Your task to perform on an android device: Open internet settings Image 0: 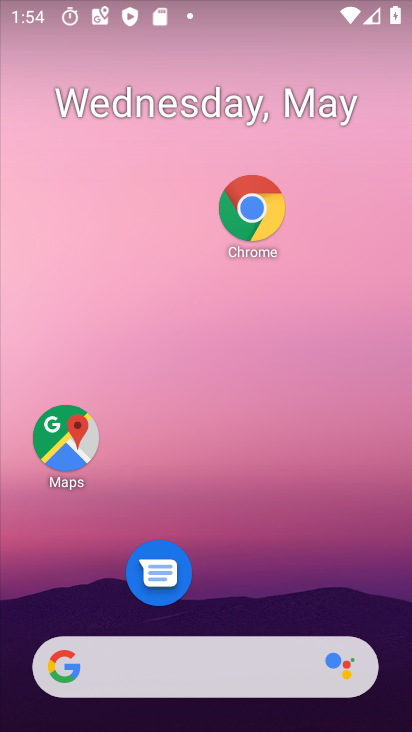
Step 0: drag from (213, 597) to (149, 15)
Your task to perform on an android device: Open internet settings Image 1: 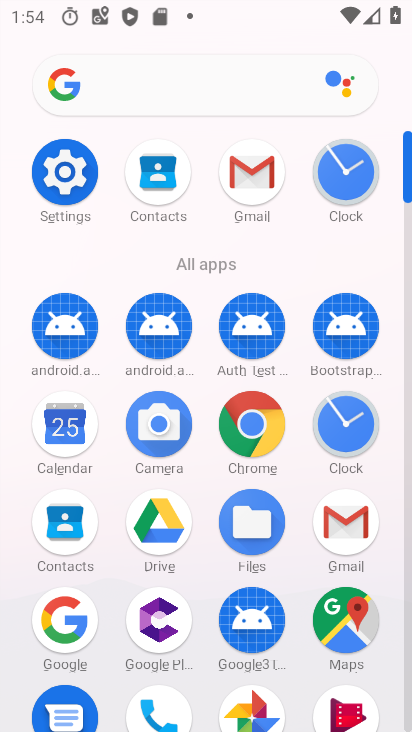
Step 1: click (57, 163)
Your task to perform on an android device: Open internet settings Image 2: 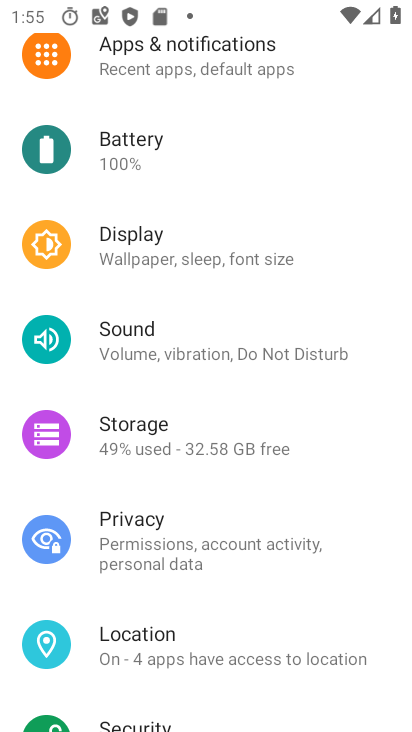
Step 2: drag from (241, 30) to (146, 502)
Your task to perform on an android device: Open internet settings Image 3: 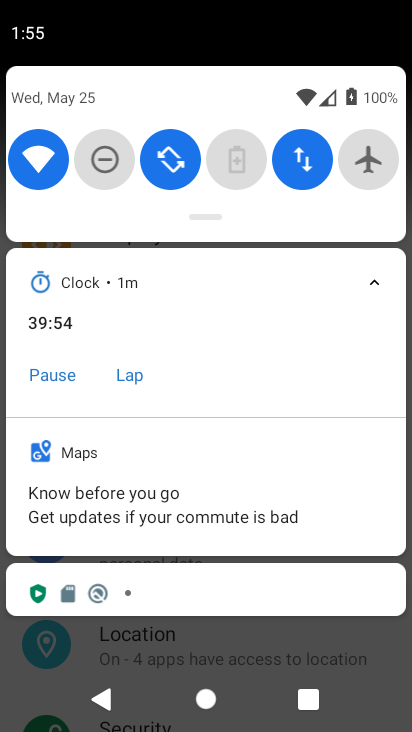
Step 3: drag from (200, 181) to (177, 402)
Your task to perform on an android device: Open internet settings Image 4: 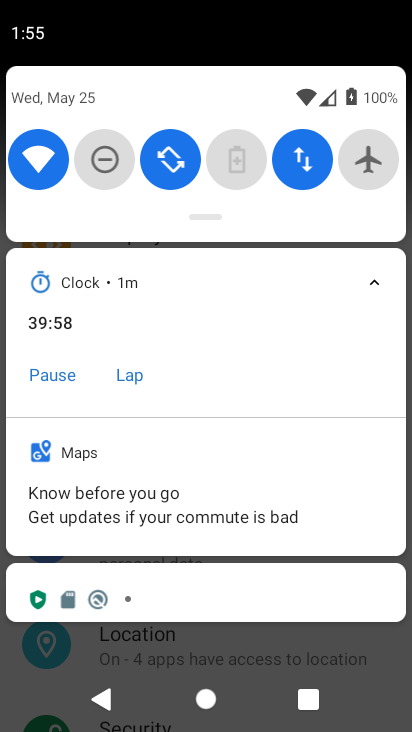
Step 4: click (298, 175)
Your task to perform on an android device: Open internet settings Image 5: 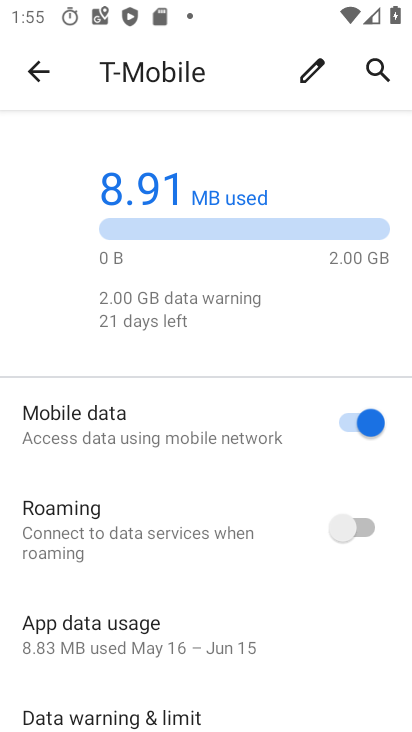
Step 5: task complete